Your task to perform on an android device: Open the calendar and show me this week's events? Image 0: 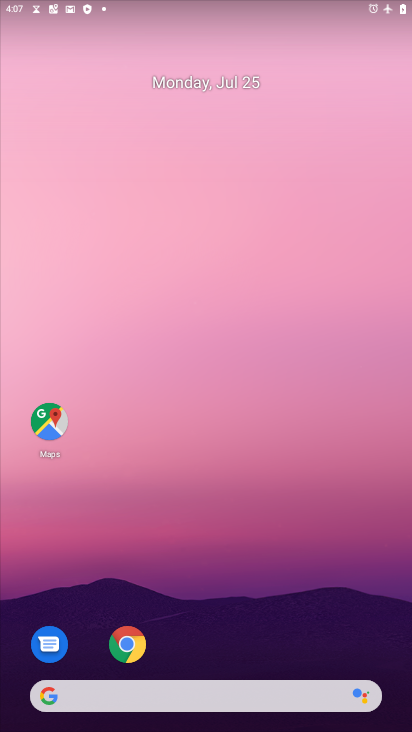
Step 0: press home button
Your task to perform on an android device: Open the calendar and show me this week's events? Image 1: 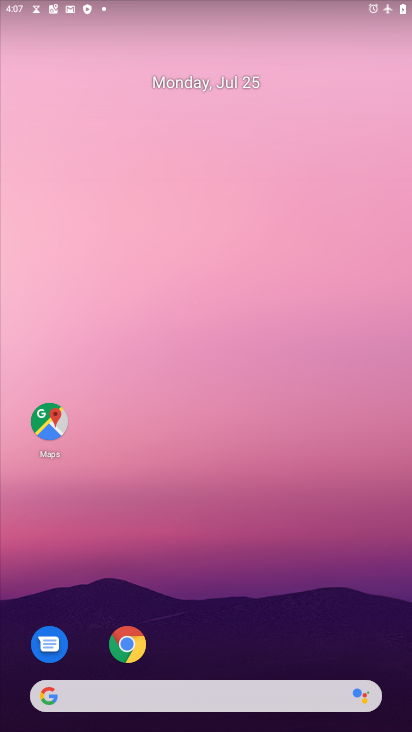
Step 1: drag from (287, 614) to (229, 54)
Your task to perform on an android device: Open the calendar and show me this week's events? Image 2: 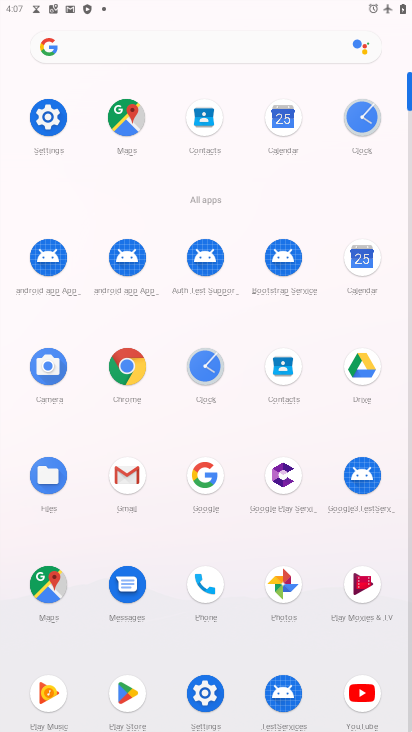
Step 2: click (289, 119)
Your task to perform on an android device: Open the calendar and show me this week's events? Image 3: 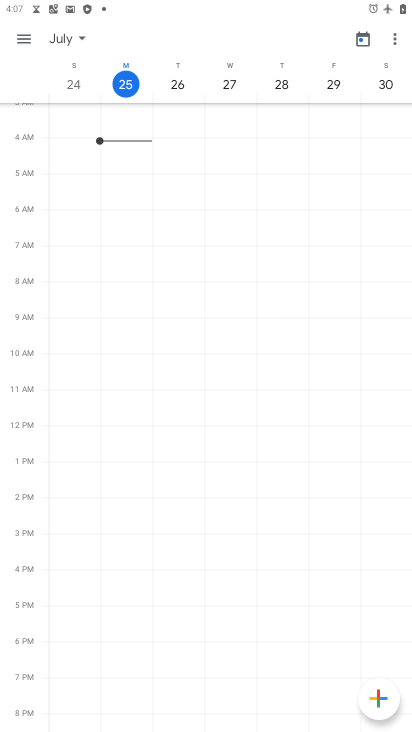
Step 3: click (394, 37)
Your task to perform on an android device: Open the calendar and show me this week's events? Image 4: 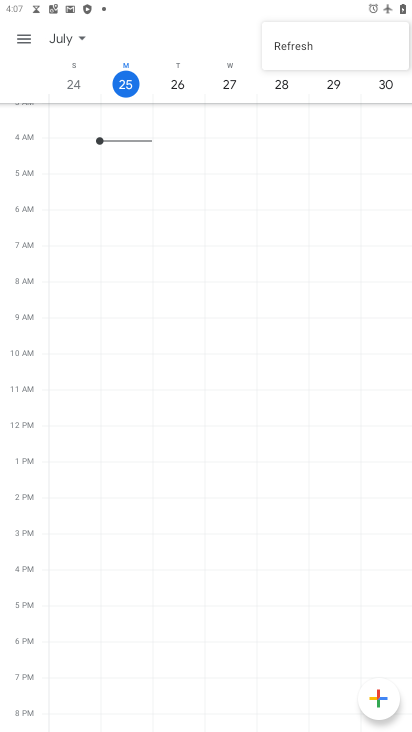
Step 4: click (24, 40)
Your task to perform on an android device: Open the calendar and show me this week's events? Image 5: 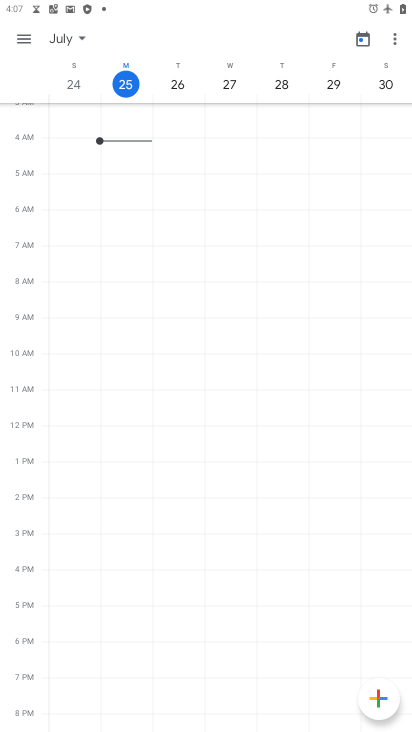
Step 5: click (20, 40)
Your task to perform on an android device: Open the calendar and show me this week's events? Image 6: 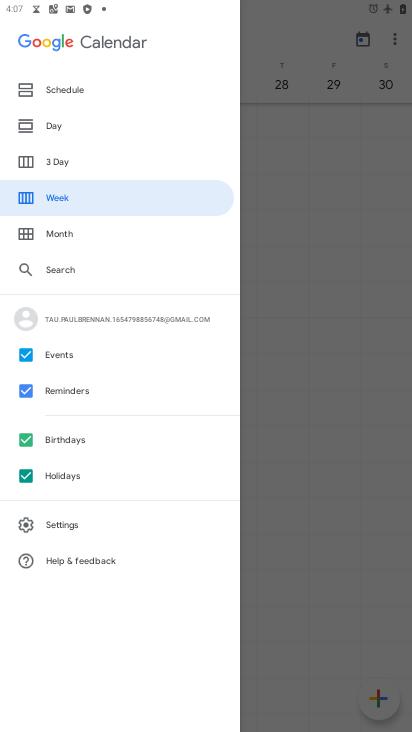
Step 6: click (51, 192)
Your task to perform on an android device: Open the calendar and show me this week's events? Image 7: 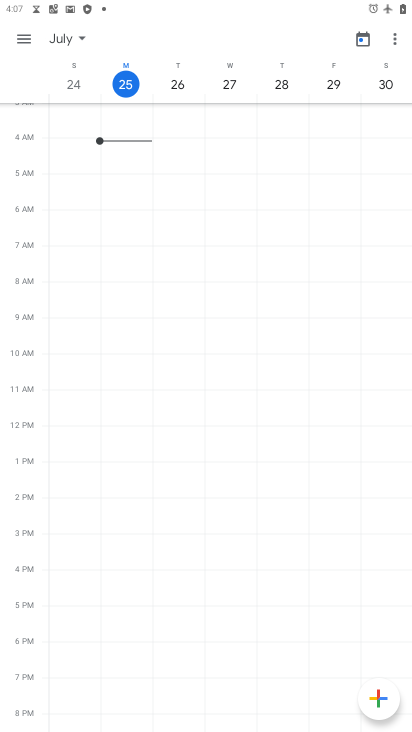
Step 7: task complete